Your task to perform on an android device: check google app version Image 0: 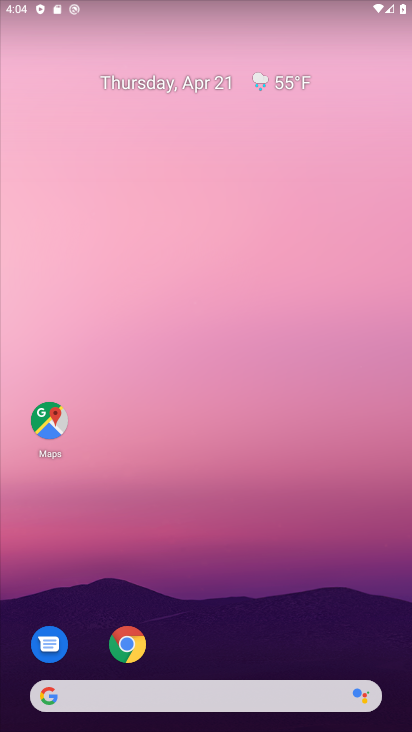
Step 0: drag from (218, 698) to (349, 151)
Your task to perform on an android device: check google app version Image 1: 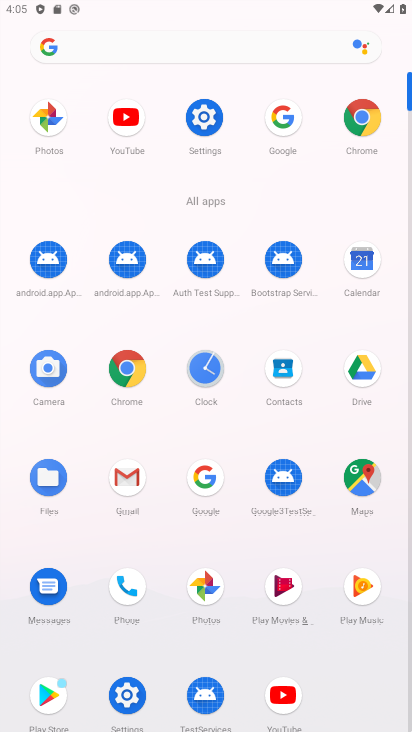
Step 1: click (203, 484)
Your task to perform on an android device: check google app version Image 2: 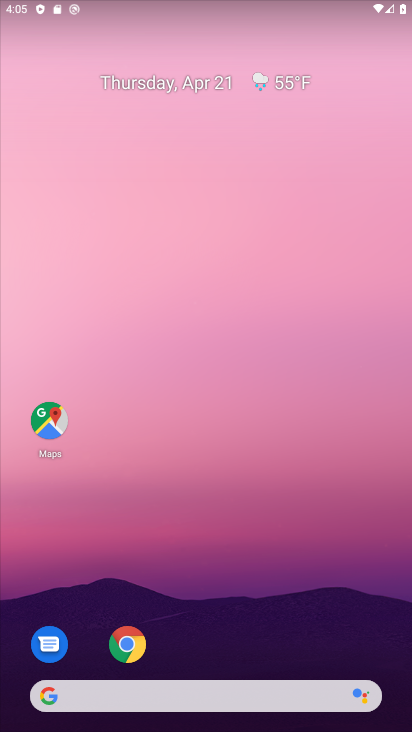
Step 2: drag from (158, 685) to (332, 66)
Your task to perform on an android device: check google app version Image 3: 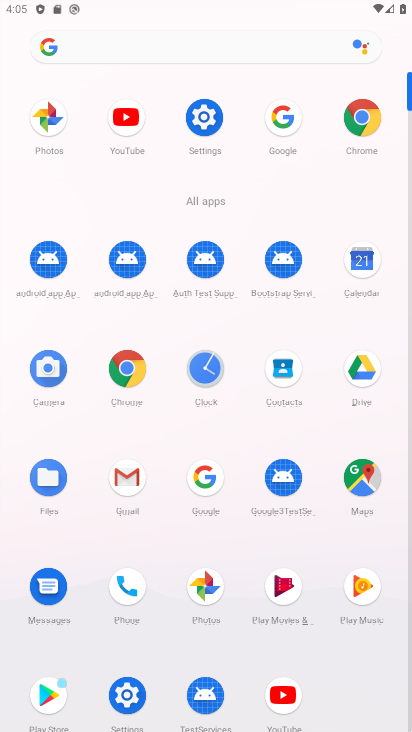
Step 3: click (206, 480)
Your task to perform on an android device: check google app version Image 4: 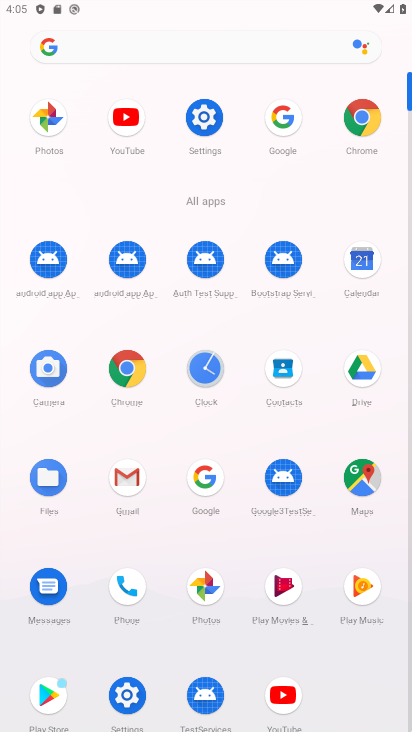
Step 4: click (298, 267)
Your task to perform on an android device: check google app version Image 5: 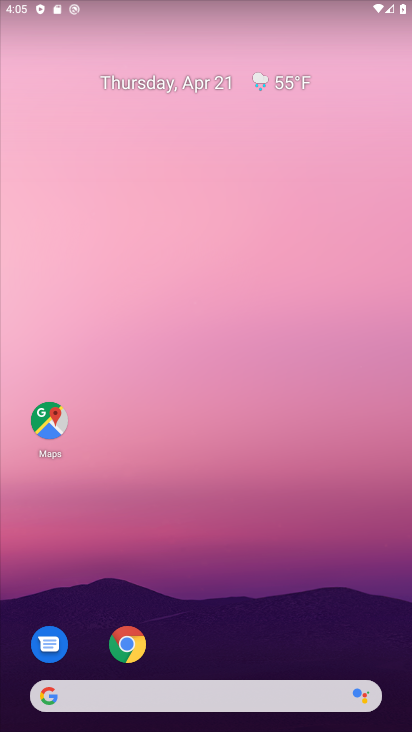
Step 5: drag from (181, 669) to (353, 18)
Your task to perform on an android device: check google app version Image 6: 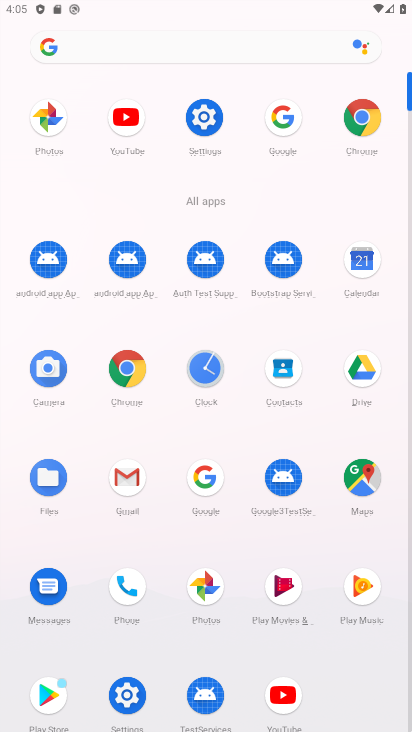
Step 6: click (205, 483)
Your task to perform on an android device: check google app version Image 7: 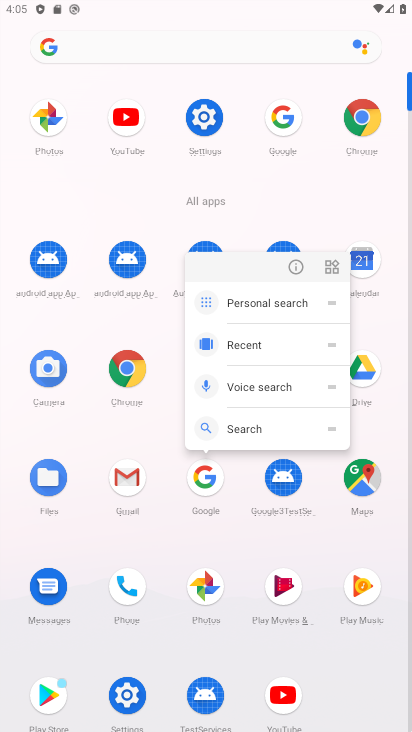
Step 7: click (297, 268)
Your task to perform on an android device: check google app version Image 8: 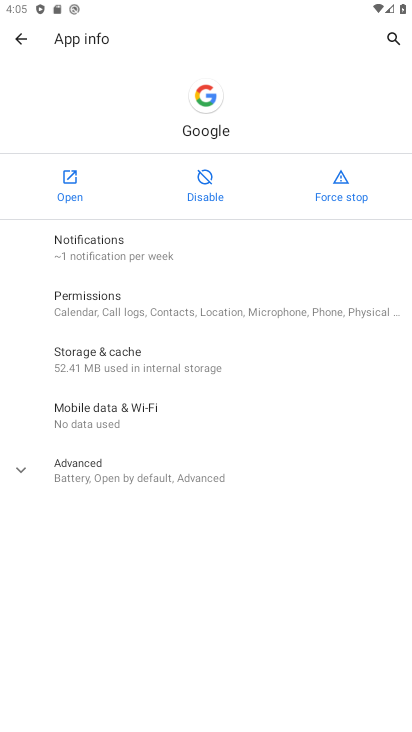
Step 8: click (101, 470)
Your task to perform on an android device: check google app version Image 9: 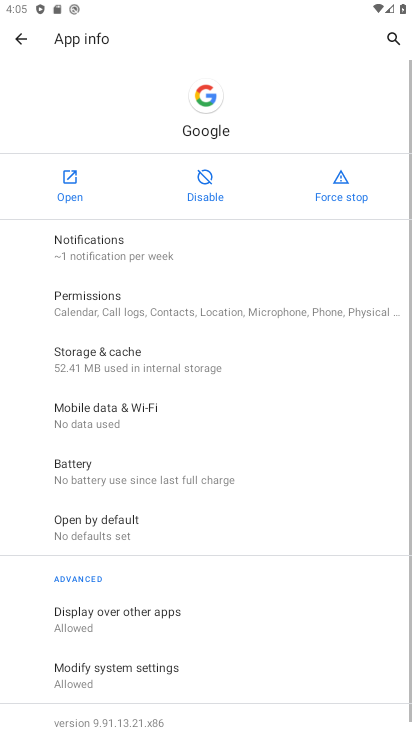
Step 9: task complete